Your task to perform on an android device: turn on the 12-hour format for clock Image 0: 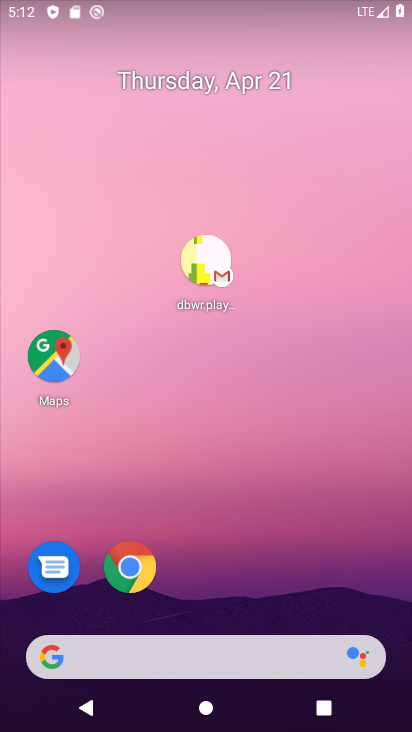
Step 0: drag from (200, 608) to (410, 13)
Your task to perform on an android device: turn on the 12-hour format for clock Image 1: 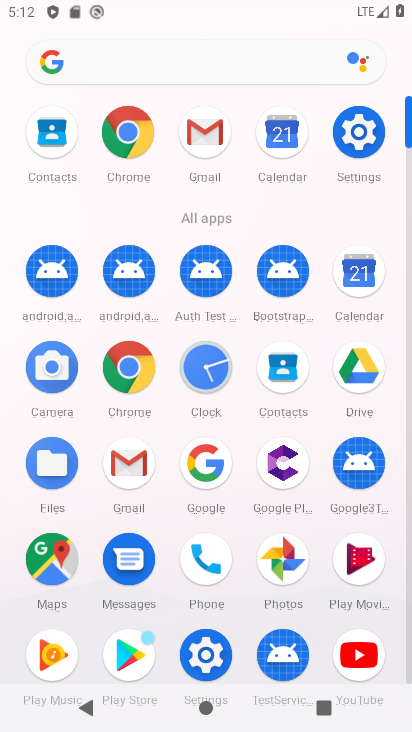
Step 1: click (203, 648)
Your task to perform on an android device: turn on the 12-hour format for clock Image 2: 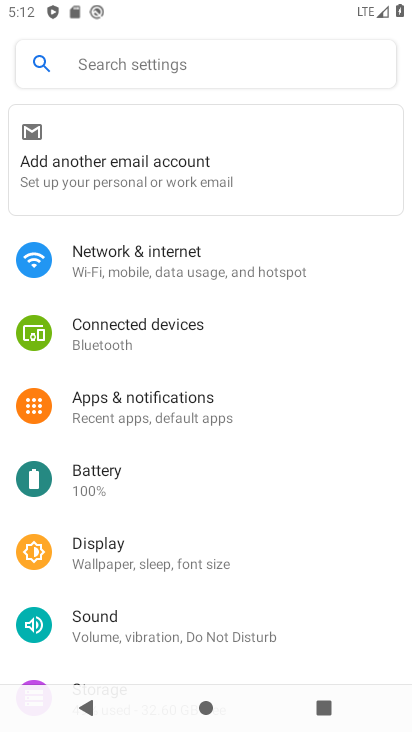
Step 2: drag from (140, 538) to (232, 5)
Your task to perform on an android device: turn on the 12-hour format for clock Image 3: 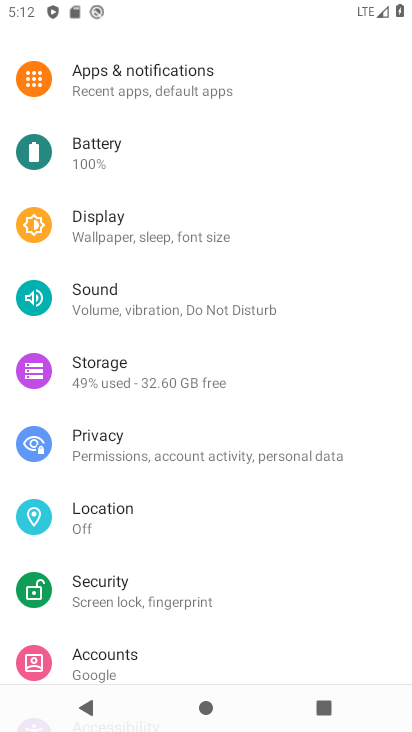
Step 3: drag from (126, 592) to (253, 8)
Your task to perform on an android device: turn on the 12-hour format for clock Image 4: 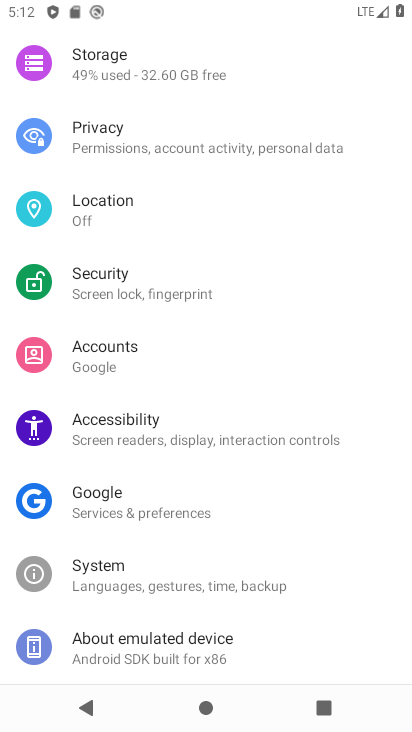
Step 4: click (140, 581)
Your task to perform on an android device: turn on the 12-hour format for clock Image 5: 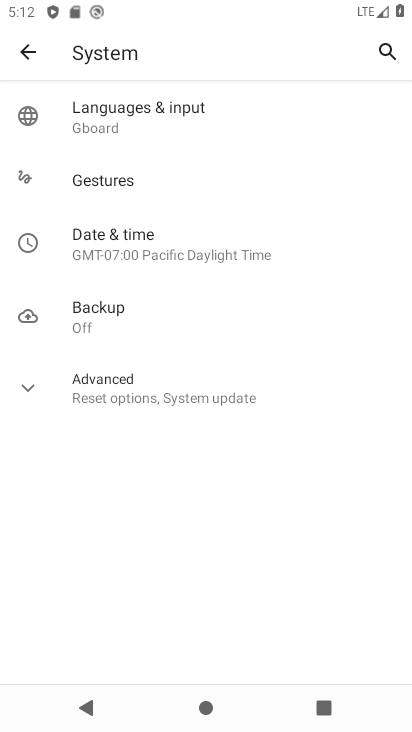
Step 5: click (149, 238)
Your task to perform on an android device: turn on the 12-hour format for clock Image 6: 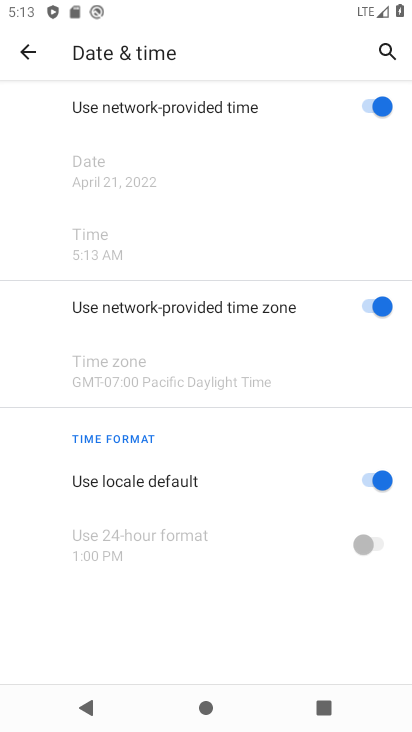
Step 6: task complete